Your task to perform on an android device: open chrome and create a bookmark for the current page Image 0: 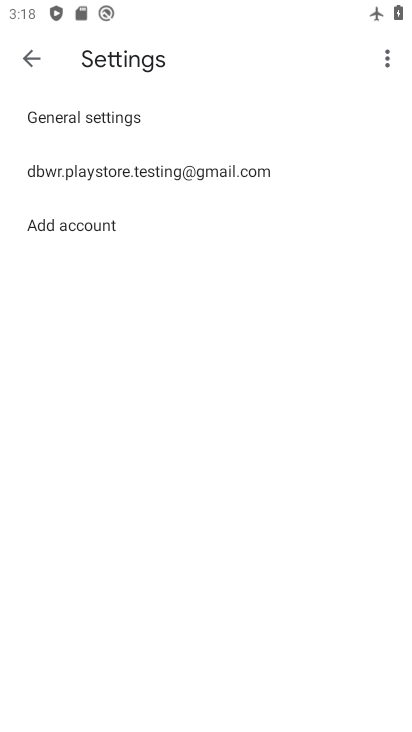
Step 0: press home button
Your task to perform on an android device: open chrome and create a bookmark for the current page Image 1: 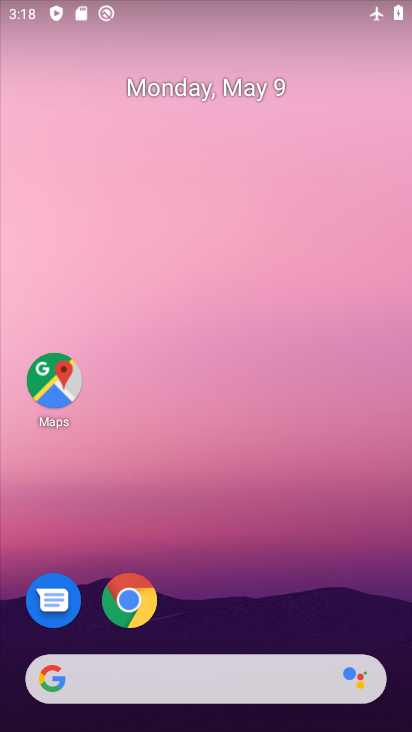
Step 1: click (132, 608)
Your task to perform on an android device: open chrome and create a bookmark for the current page Image 2: 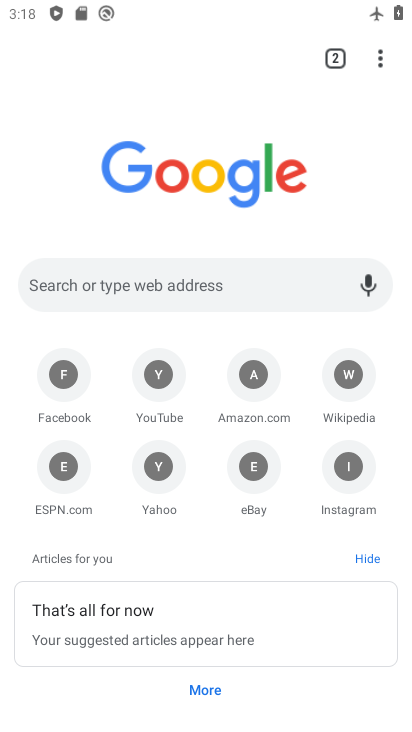
Step 2: click (388, 65)
Your task to perform on an android device: open chrome and create a bookmark for the current page Image 3: 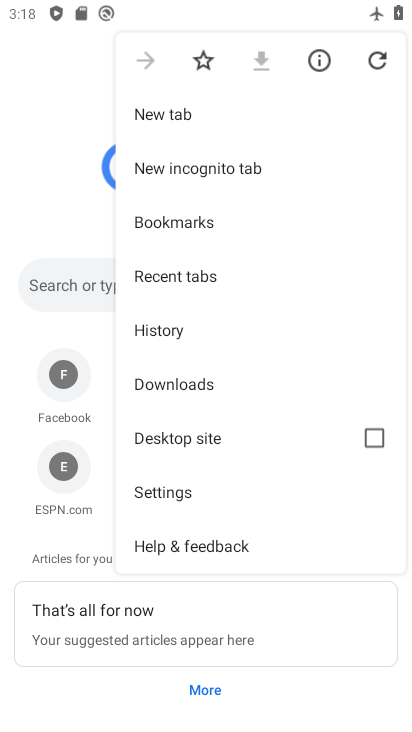
Step 3: click (199, 62)
Your task to perform on an android device: open chrome and create a bookmark for the current page Image 4: 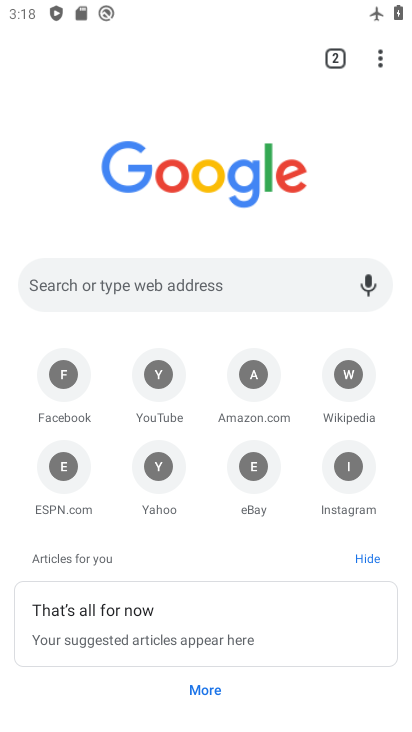
Step 4: task complete